Your task to perform on an android device: Go to sound settings Image 0: 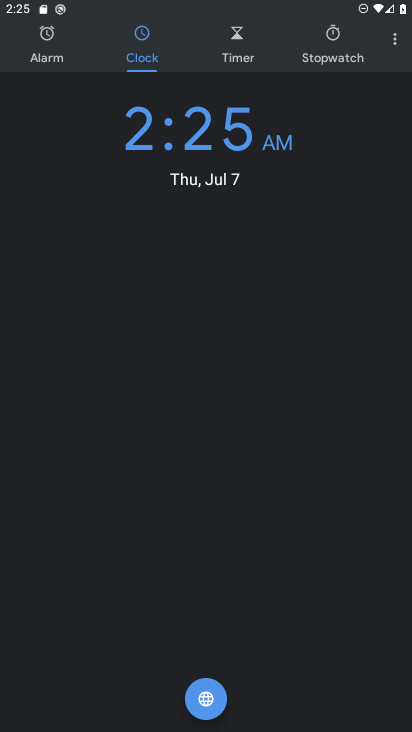
Step 0: press home button
Your task to perform on an android device: Go to sound settings Image 1: 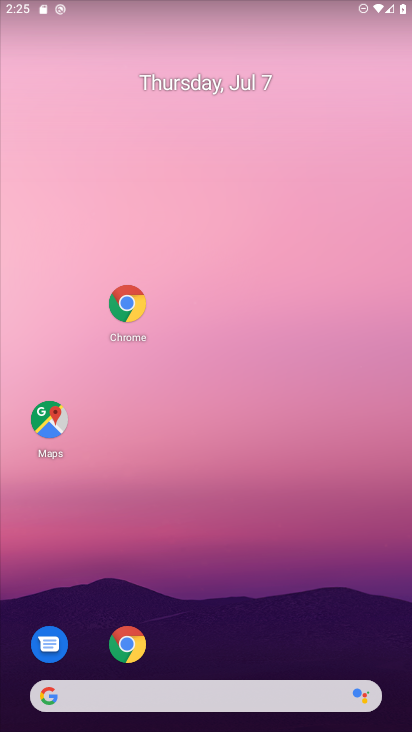
Step 1: drag from (266, 635) to (274, 120)
Your task to perform on an android device: Go to sound settings Image 2: 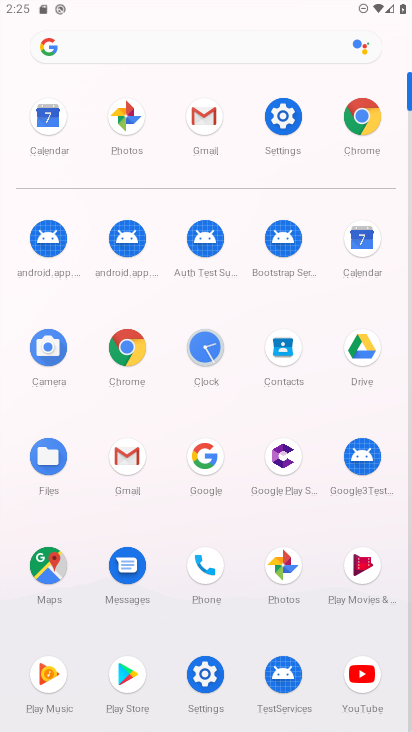
Step 2: click (209, 673)
Your task to perform on an android device: Go to sound settings Image 3: 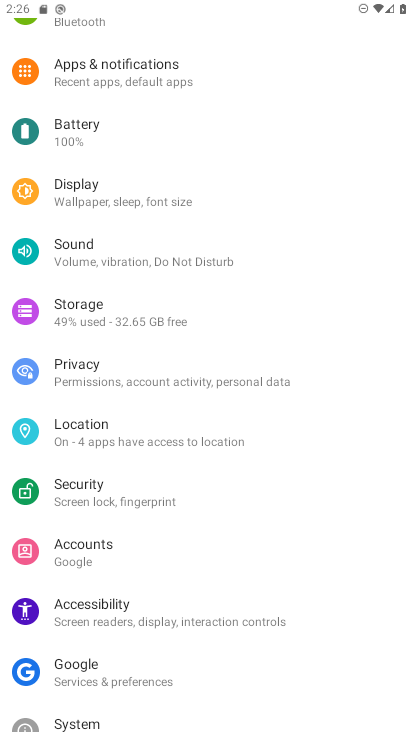
Step 3: click (260, 262)
Your task to perform on an android device: Go to sound settings Image 4: 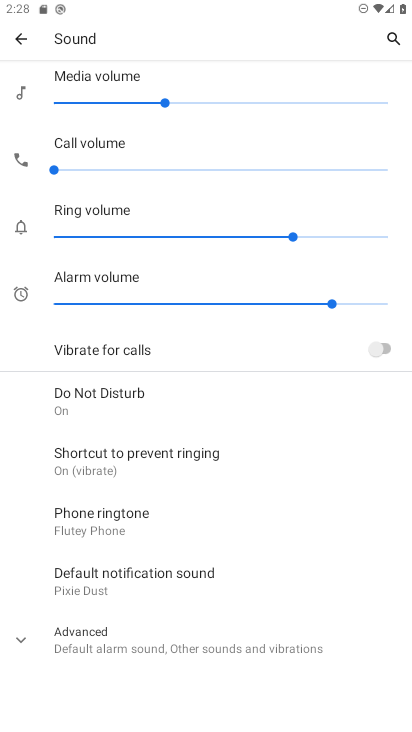
Step 4: task complete